Your task to perform on an android device: open app "Google Maps" Image 0: 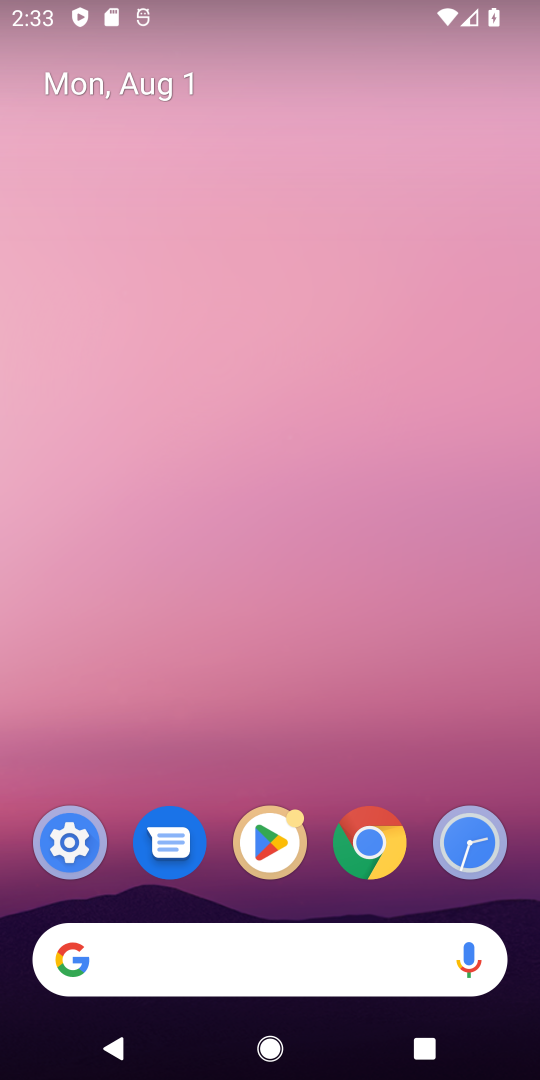
Step 0: drag from (283, 873) to (323, 141)
Your task to perform on an android device: open app "Google Maps" Image 1: 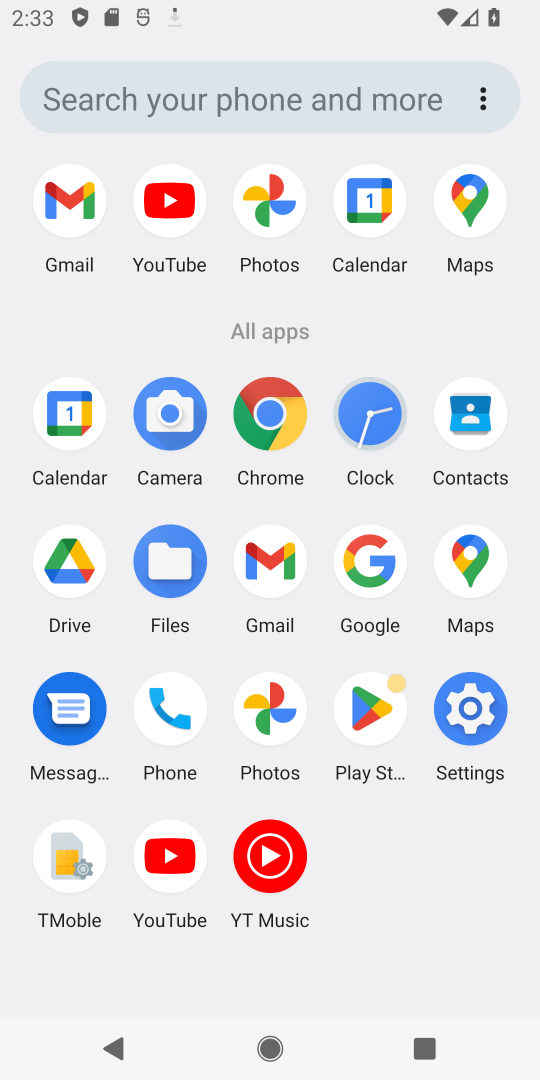
Step 1: click (472, 211)
Your task to perform on an android device: open app "Google Maps" Image 2: 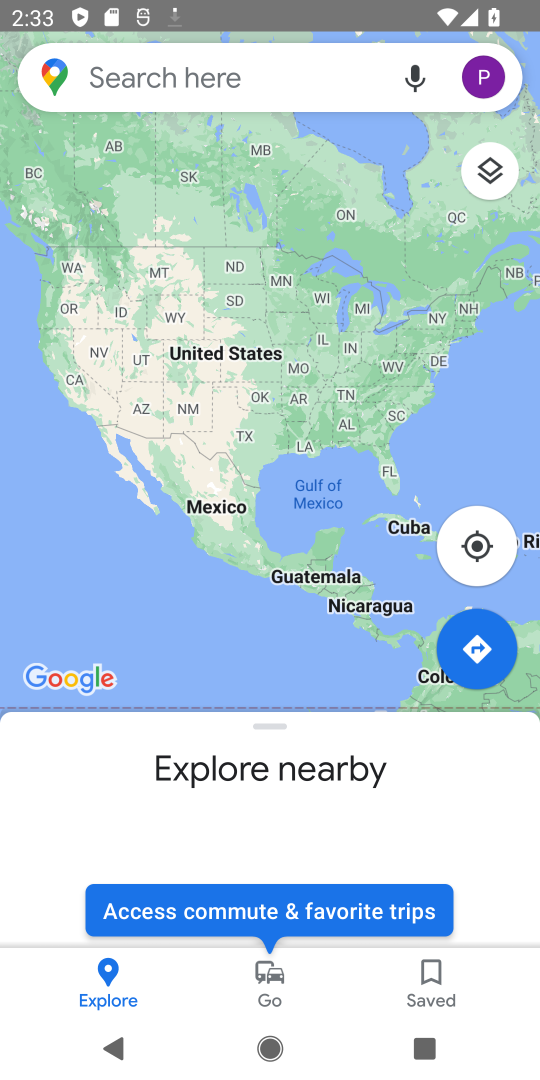
Step 2: task complete